Your task to perform on an android device: check storage Image 0: 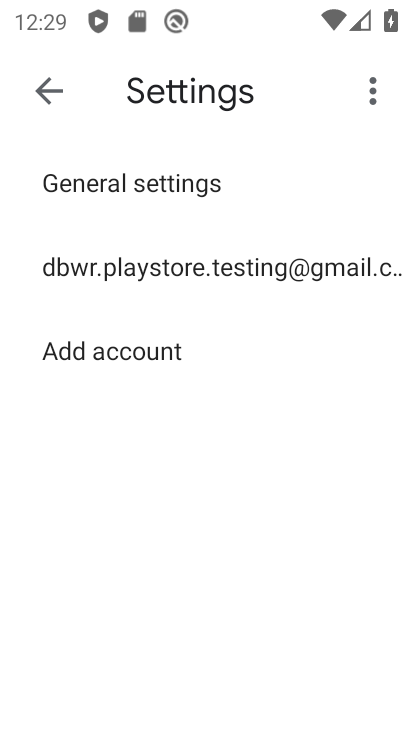
Step 0: press home button
Your task to perform on an android device: check storage Image 1: 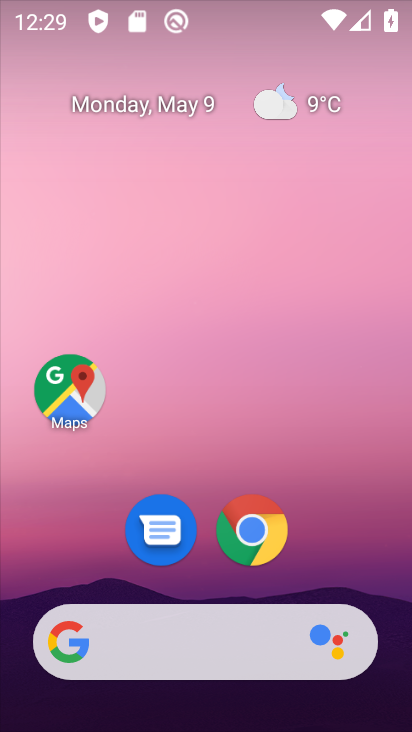
Step 1: drag from (373, 544) to (336, 237)
Your task to perform on an android device: check storage Image 2: 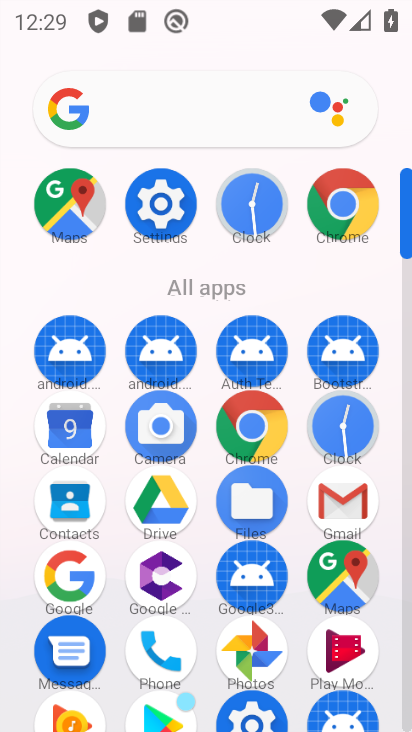
Step 2: click (154, 199)
Your task to perform on an android device: check storage Image 3: 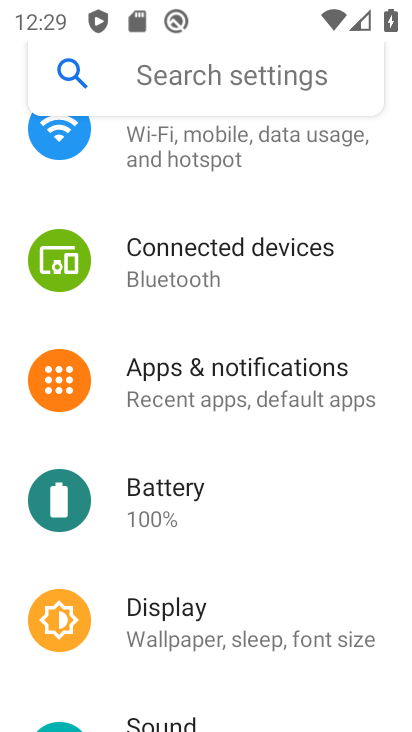
Step 3: drag from (253, 222) to (237, 517)
Your task to perform on an android device: check storage Image 4: 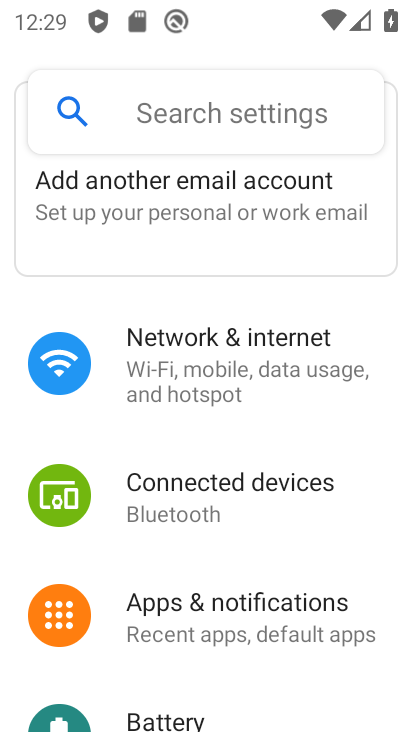
Step 4: drag from (253, 556) to (351, 205)
Your task to perform on an android device: check storage Image 5: 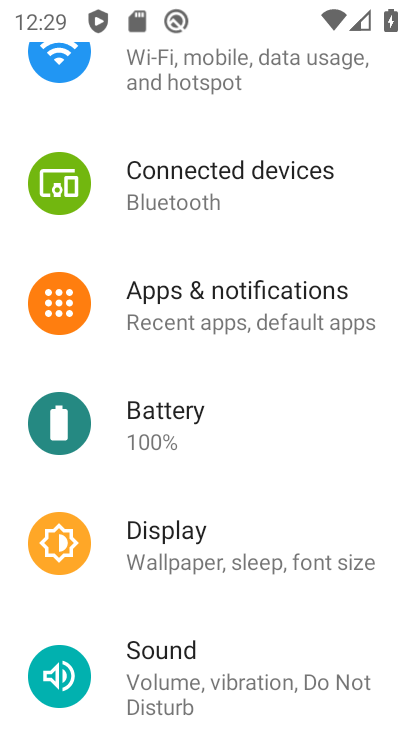
Step 5: drag from (247, 579) to (306, 218)
Your task to perform on an android device: check storage Image 6: 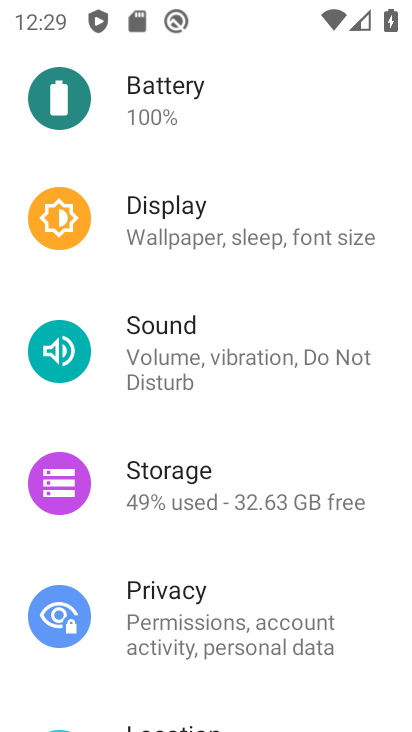
Step 6: click (206, 483)
Your task to perform on an android device: check storage Image 7: 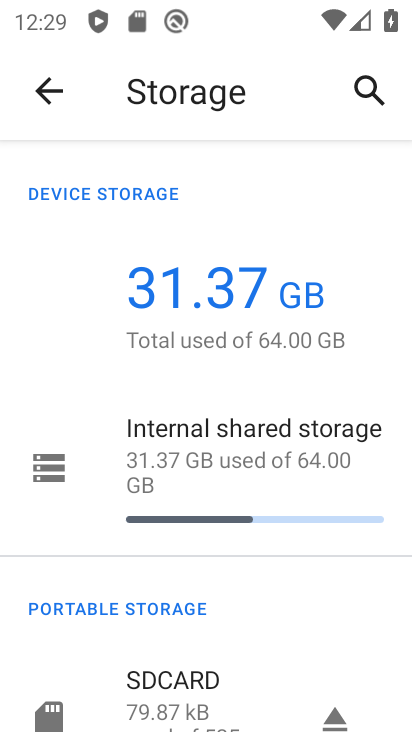
Step 7: task complete